Your task to perform on an android device: Open the calendar app, open the side menu, and click the "Day" option Image 0: 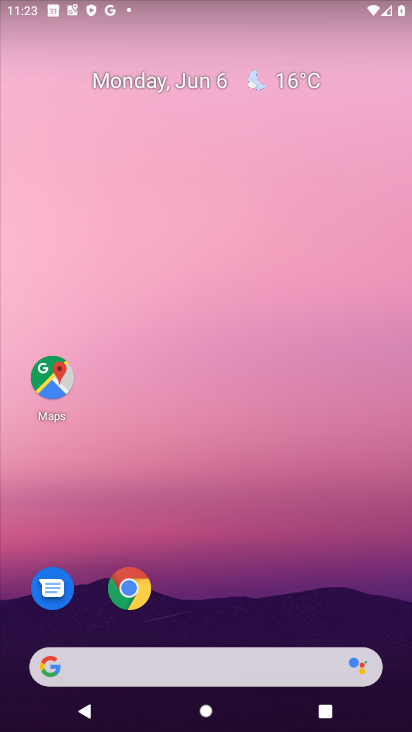
Step 0: drag from (263, 529) to (270, 313)
Your task to perform on an android device: Open the calendar app, open the side menu, and click the "Day" option Image 1: 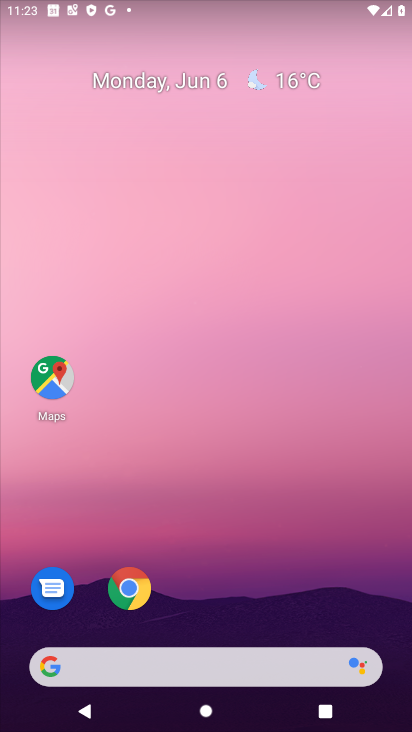
Step 1: drag from (284, 524) to (314, 110)
Your task to perform on an android device: Open the calendar app, open the side menu, and click the "Day" option Image 2: 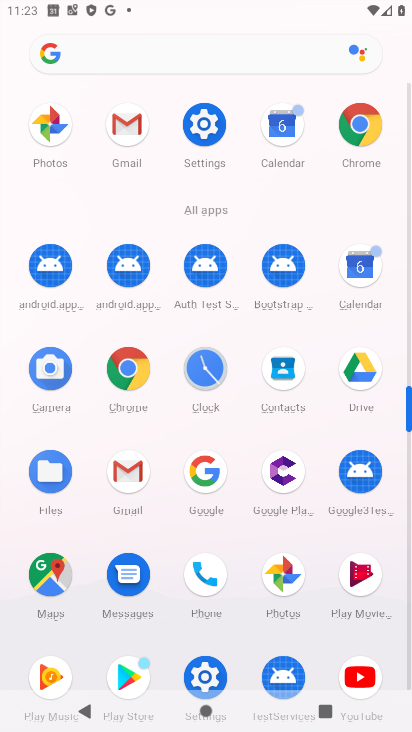
Step 2: click (281, 116)
Your task to perform on an android device: Open the calendar app, open the side menu, and click the "Day" option Image 3: 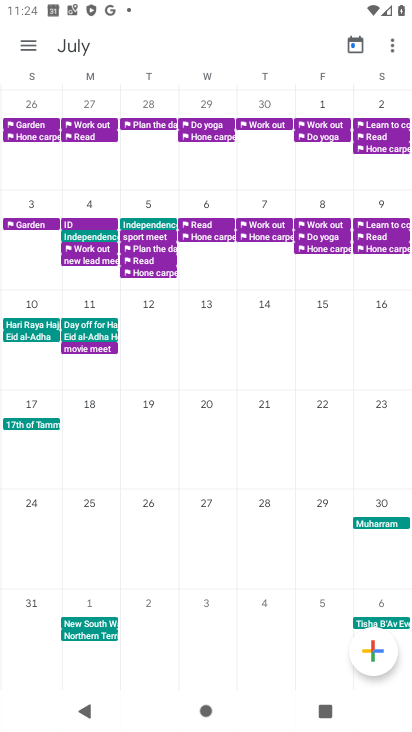
Step 3: click (32, 43)
Your task to perform on an android device: Open the calendar app, open the side menu, and click the "Day" option Image 4: 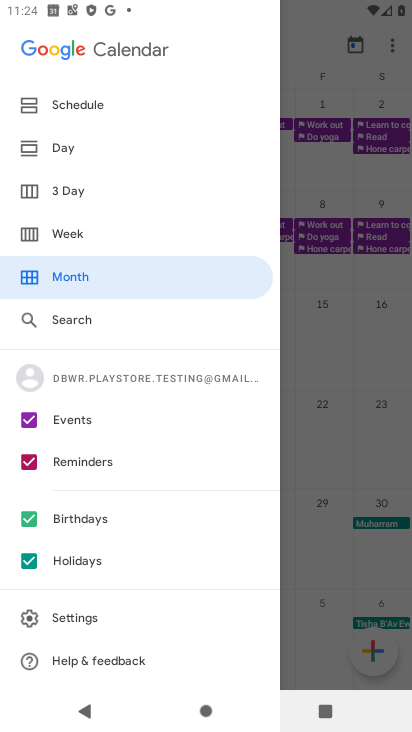
Step 4: click (79, 140)
Your task to perform on an android device: Open the calendar app, open the side menu, and click the "Day" option Image 5: 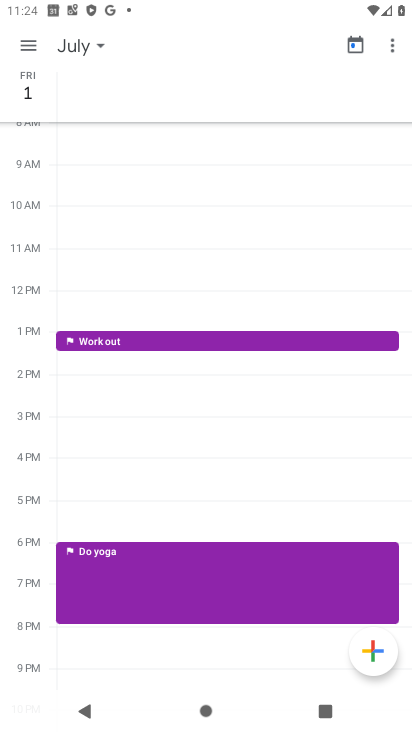
Step 5: task complete